Your task to perform on an android device: turn off translation in the chrome app Image 0: 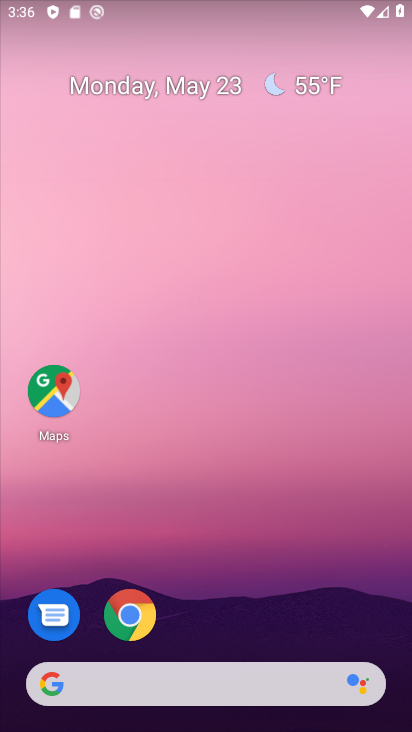
Step 0: drag from (379, 633) to (373, 161)
Your task to perform on an android device: turn off translation in the chrome app Image 1: 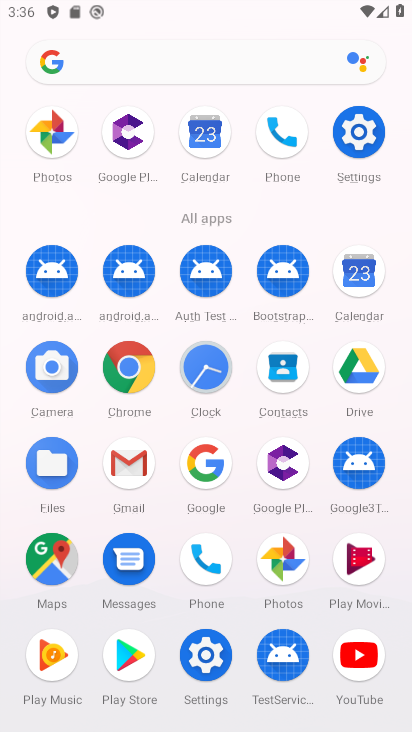
Step 1: drag from (238, 606) to (242, 351)
Your task to perform on an android device: turn off translation in the chrome app Image 2: 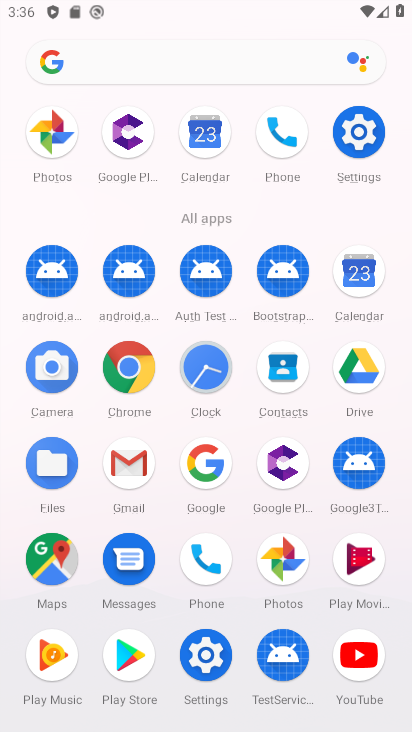
Step 2: click (133, 357)
Your task to perform on an android device: turn off translation in the chrome app Image 3: 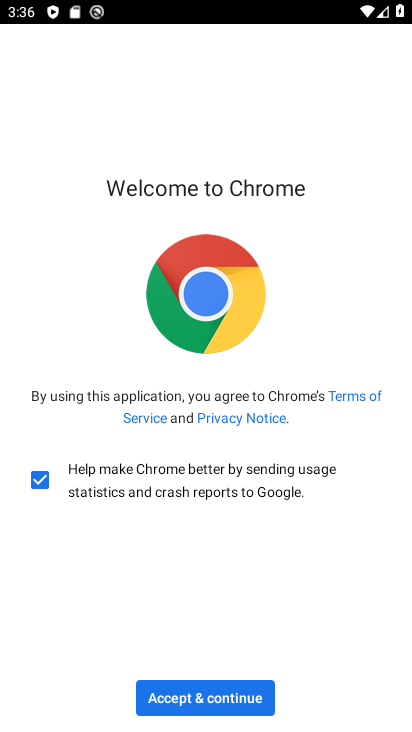
Step 3: click (219, 707)
Your task to perform on an android device: turn off translation in the chrome app Image 4: 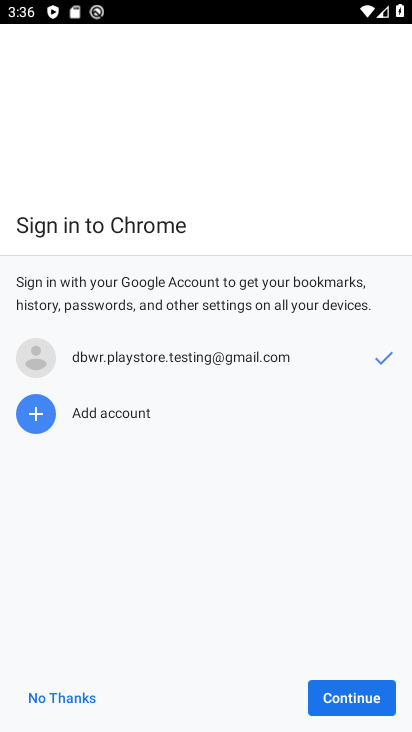
Step 4: click (356, 703)
Your task to perform on an android device: turn off translation in the chrome app Image 5: 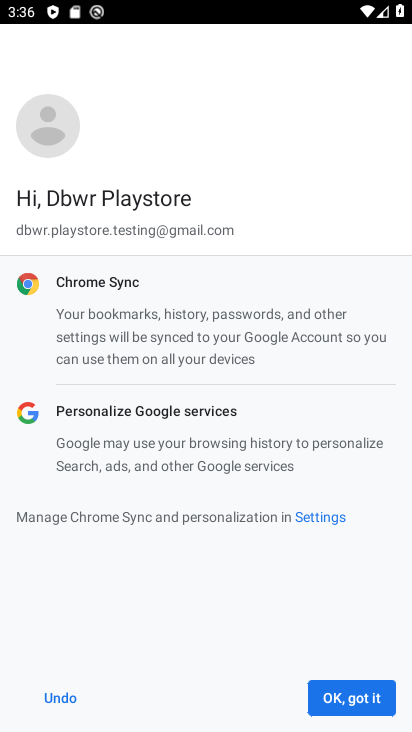
Step 5: click (358, 701)
Your task to perform on an android device: turn off translation in the chrome app Image 6: 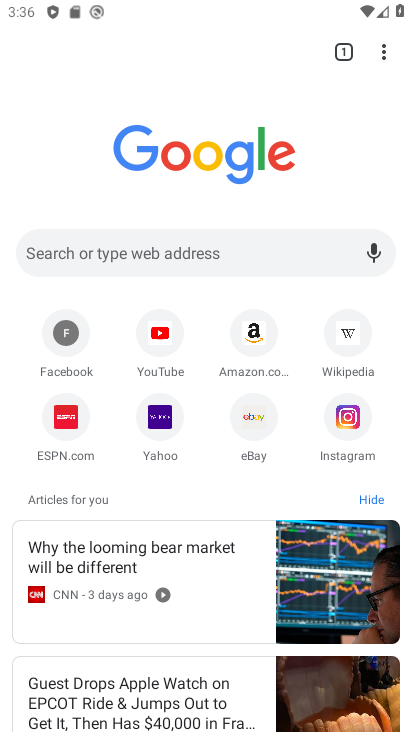
Step 6: click (381, 58)
Your task to perform on an android device: turn off translation in the chrome app Image 7: 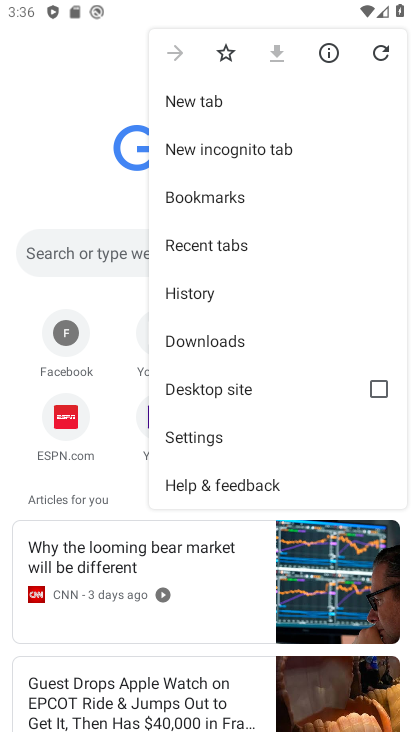
Step 7: drag from (312, 411) to (289, 244)
Your task to perform on an android device: turn off translation in the chrome app Image 8: 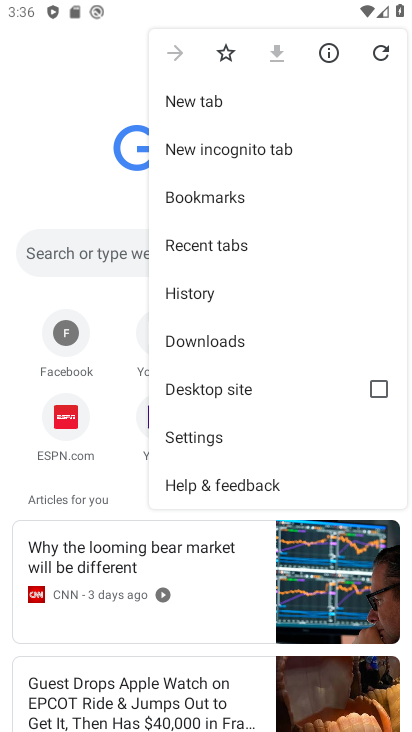
Step 8: click (221, 436)
Your task to perform on an android device: turn off translation in the chrome app Image 9: 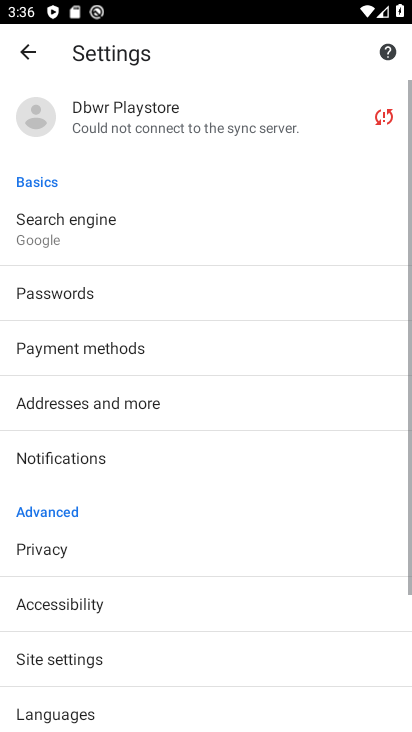
Step 9: drag from (260, 613) to (256, 399)
Your task to perform on an android device: turn off translation in the chrome app Image 10: 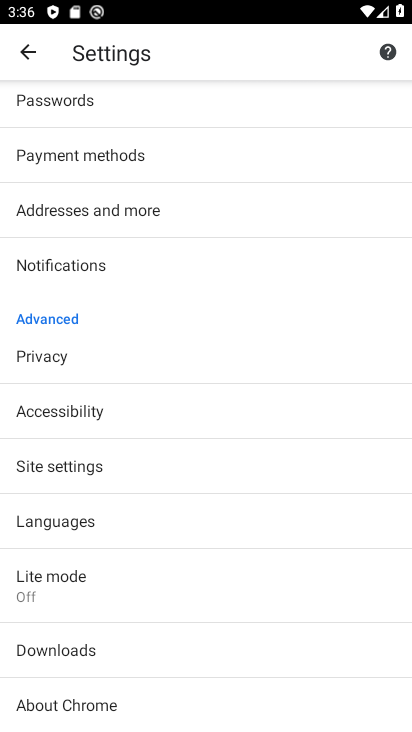
Step 10: drag from (259, 613) to (258, 404)
Your task to perform on an android device: turn off translation in the chrome app Image 11: 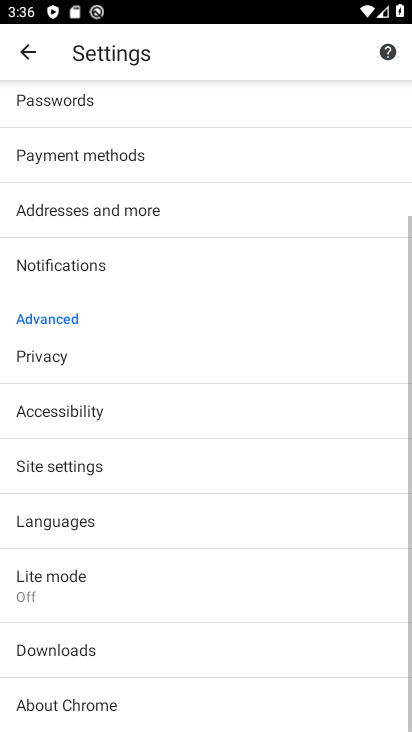
Step 11: drag from (268, 264) to (240, 454)
Your task to perform on an android device: turn off translation in the chrome app Image 12: 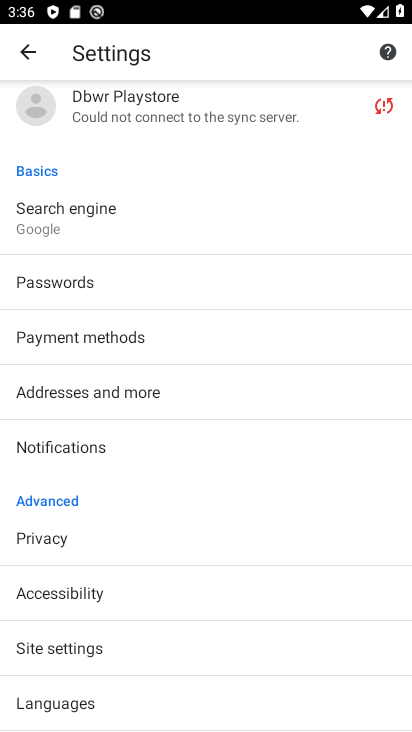
Step 12: drag from (270, 228) to (257, 413)
Your task to perform on an android device: turn off translation in the chrome app Image 13: 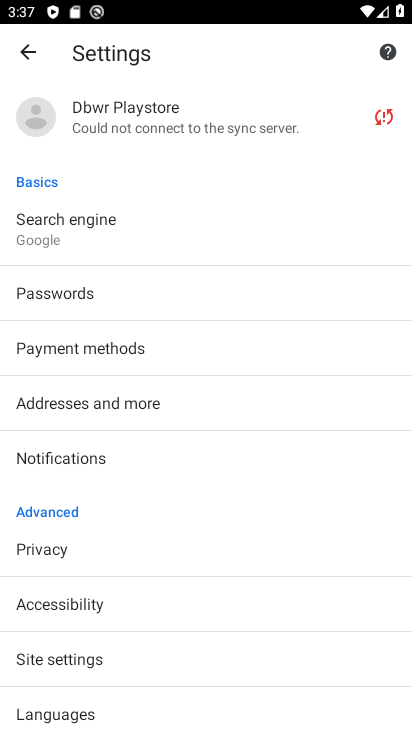
Step 13: drag from (274, 581) to (286, 359)
Your task to perform on an android device: turn off translation in the chrome app Image 14: 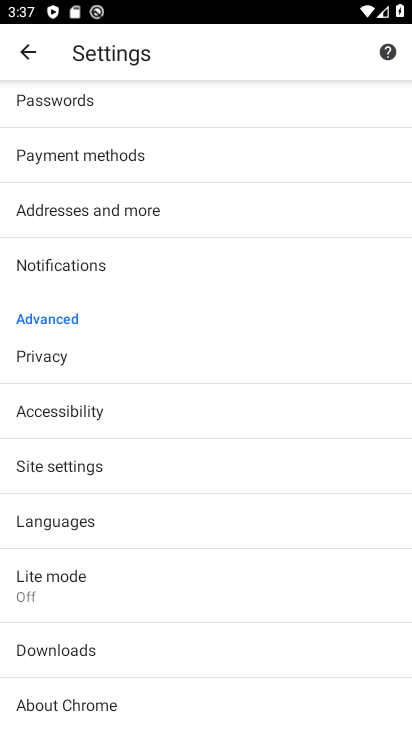
Step 14: drag from (272, 579) to (282, 377)
Your task to perform on an android device: turn off translation in the chrome app Image 15: 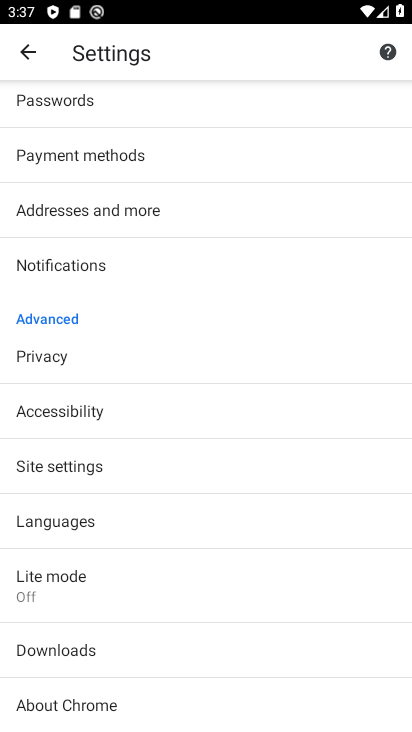
Step 15: drag from (279, 290) to (261, 464)
Your task to perform on an android device: turn off translation in the chrome app Image 16: 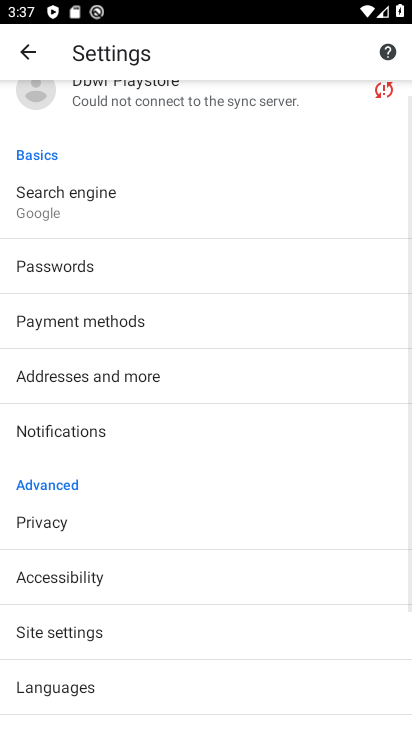
Step 16: drag from (244, 247) to (235, 473)
Your task to perform on an android device: turn off translation in the chrome app Image 17: 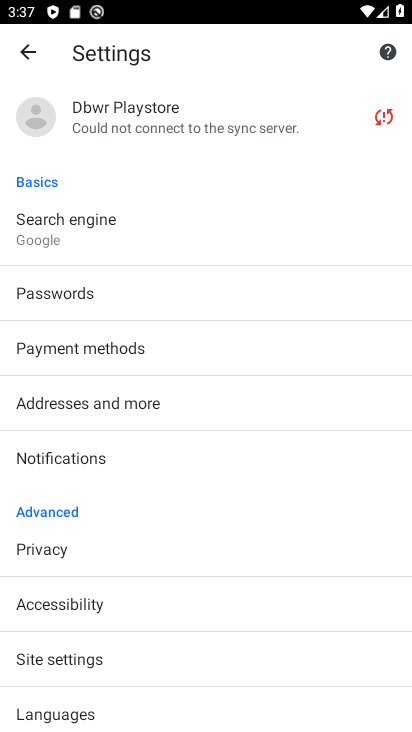
Step 17: drag from (261, 576) to (263, 374)
Your task to perform on an android device: turn off translation in the chrome app Image 18: 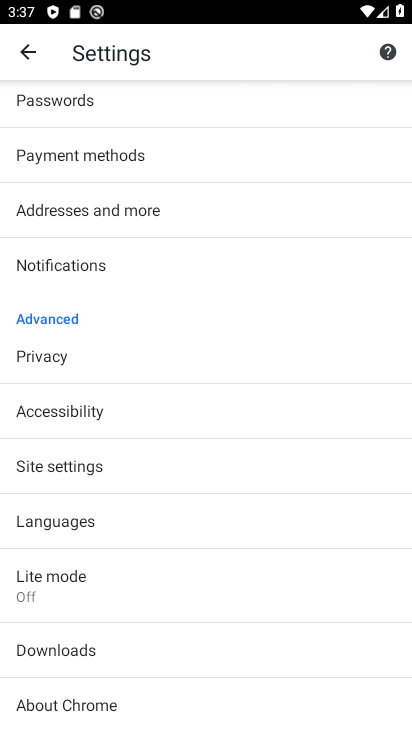
Step 18: drag from (229, 632) to (230, 408)
Your task to perform on an android device: turn off translation in the chrome app Image 19: 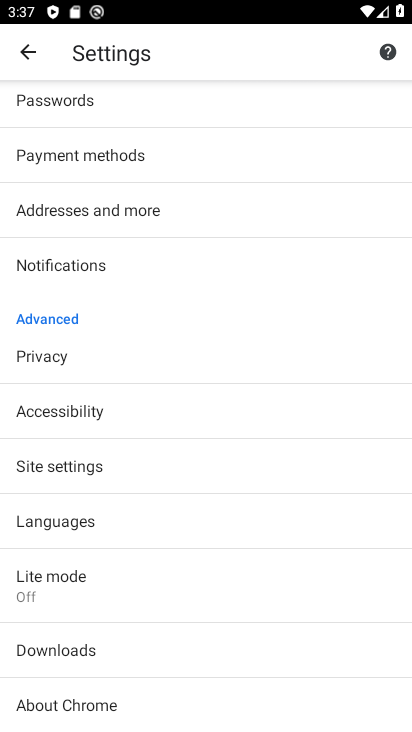
Step 19: click (178, 518)
Your task to perform on an android device: turn off translation in the chrome app Image 20: 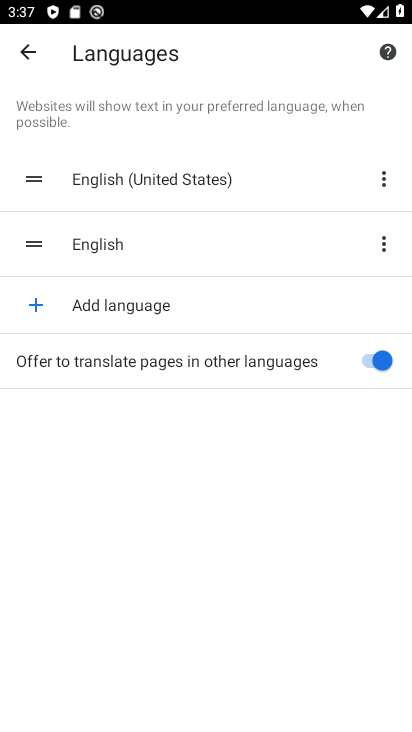
Step 20: click (361, 366)
Your task to perform on an android device: turn off translation in the chrome app Image 21: 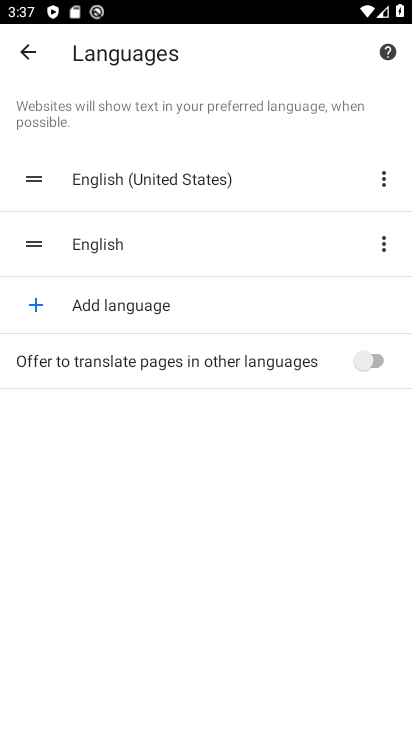
Step 21: task complete